Your task to perform on an android device: open app "Move to iOS" (install if not already installed) Image 0: 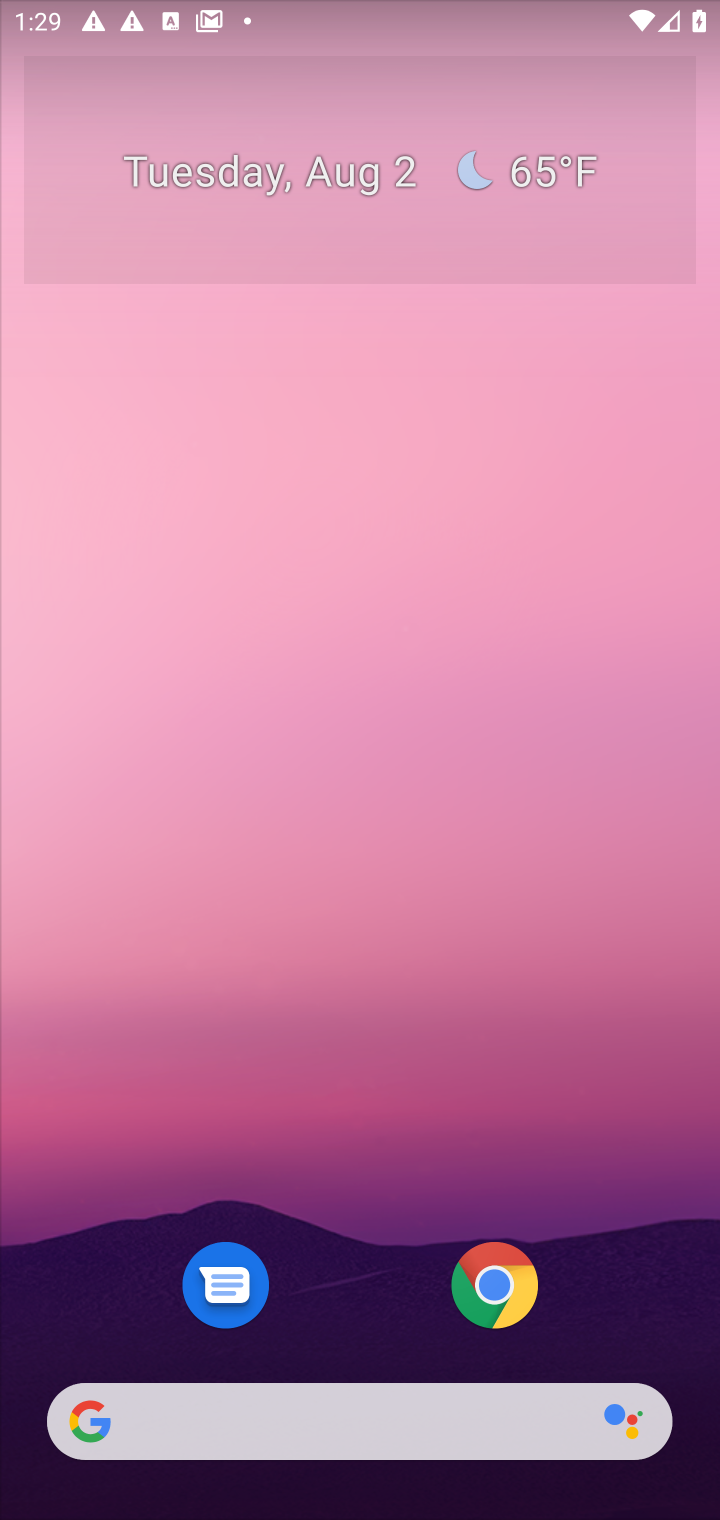
Step 0: drag from (370, 1090) to (356, 259)
Your task to perform on an android device: open app "Move to iOS" (install if not already installed) Image 1: 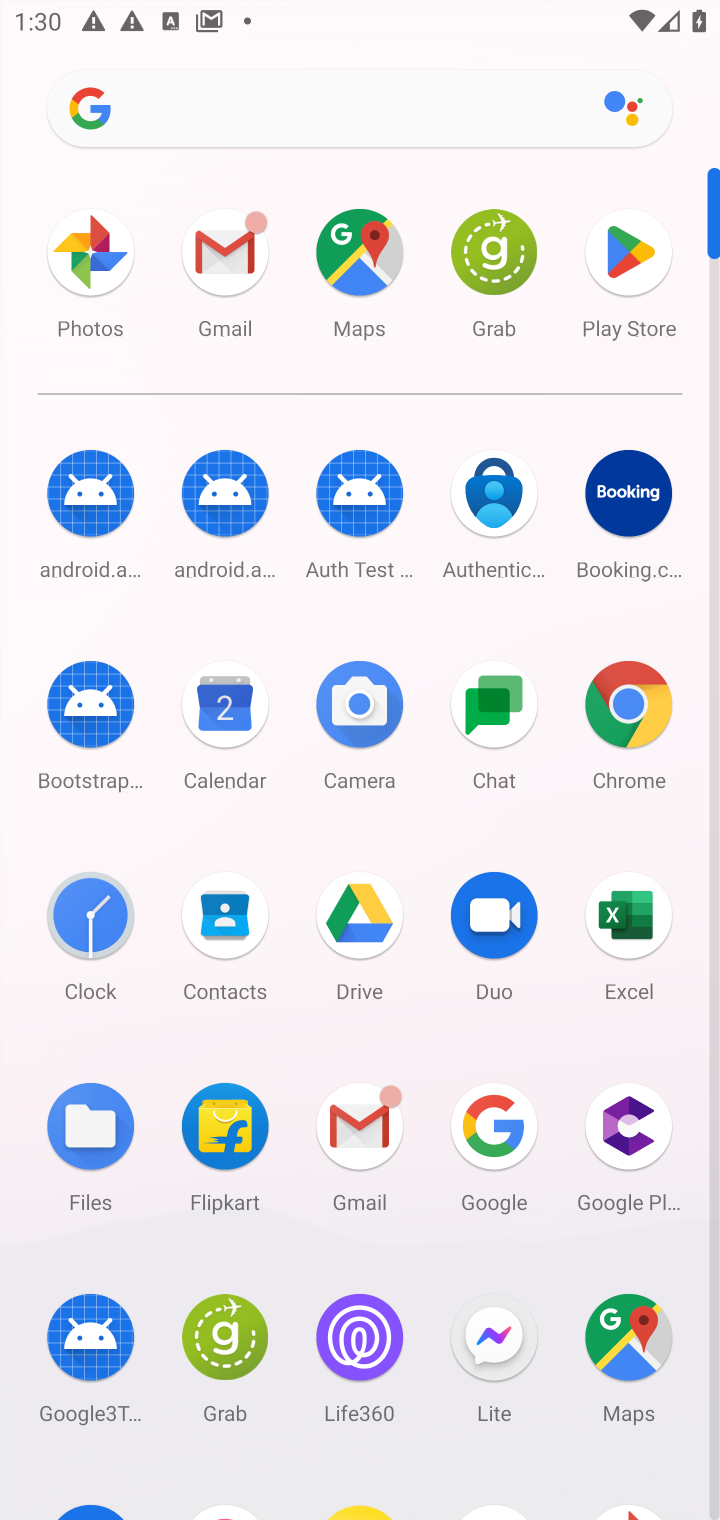
Step 1: drag from (430, 1276) to (430, 514)
Your task to perform on an android device: open app "Move to iOS" (install if not already installed) Image 2: 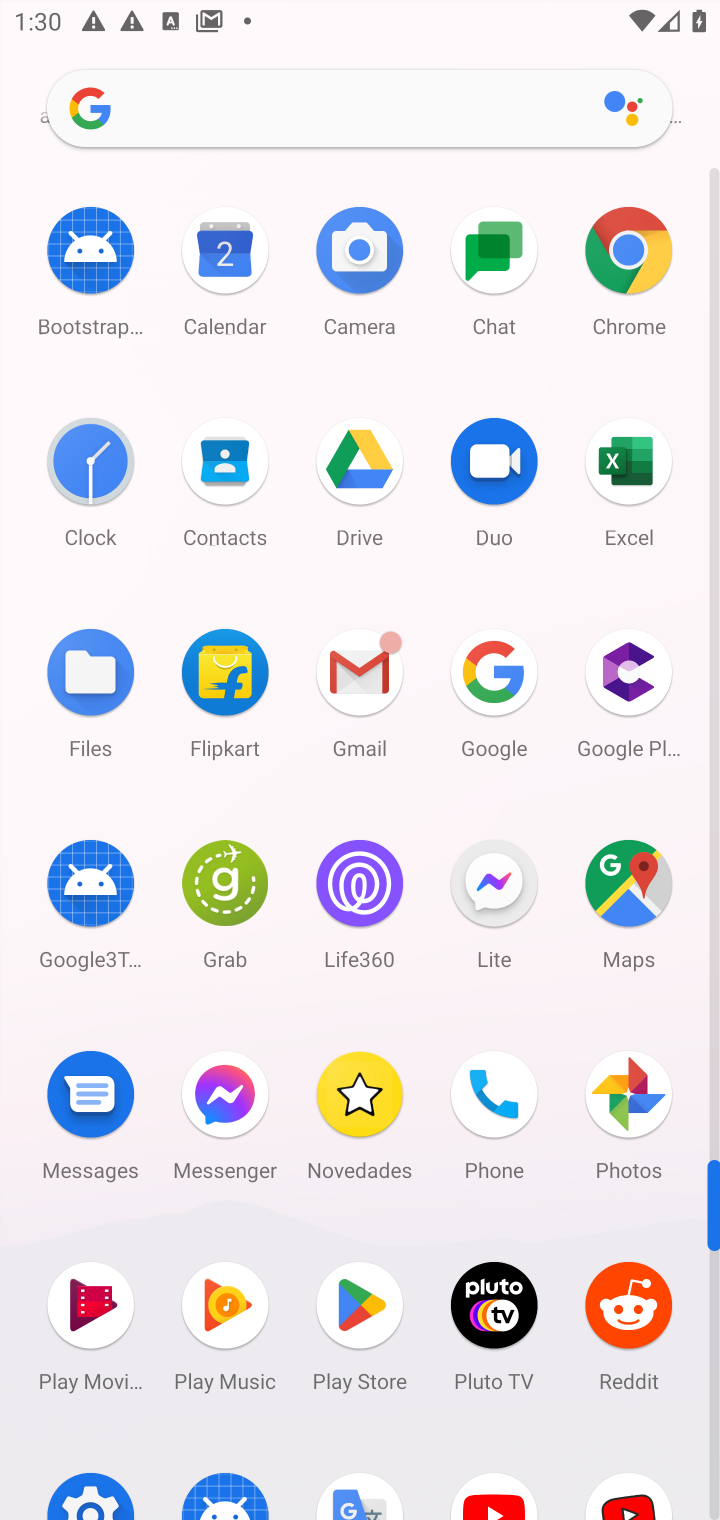
Step 2: click (374, 1321)
Your task to perform on an android device: open app "Move to iOS" (install if not already installed) Image 3: 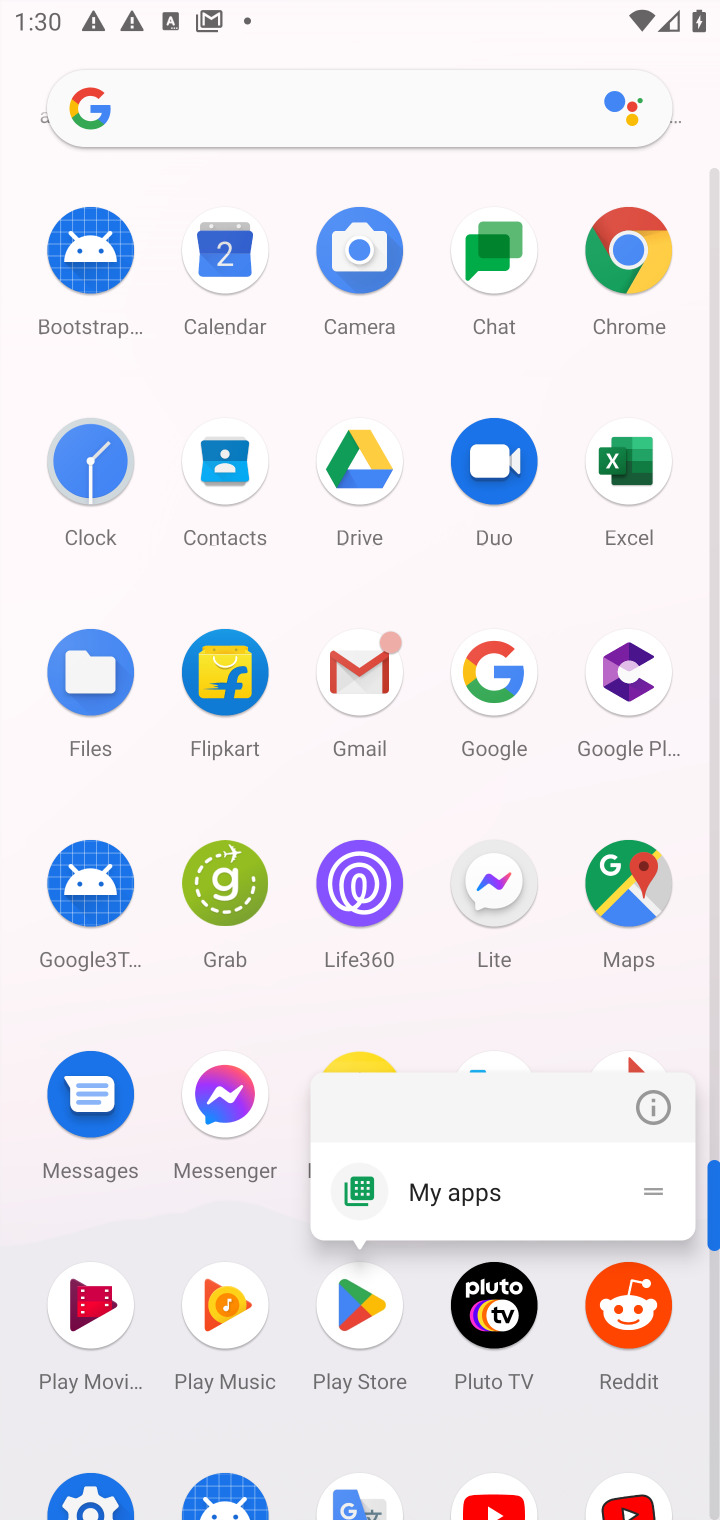
Step 3: click (374, 1308)
Your task to perform on an android device: open app "Move to iOS" (install if not already installed) Image 4: 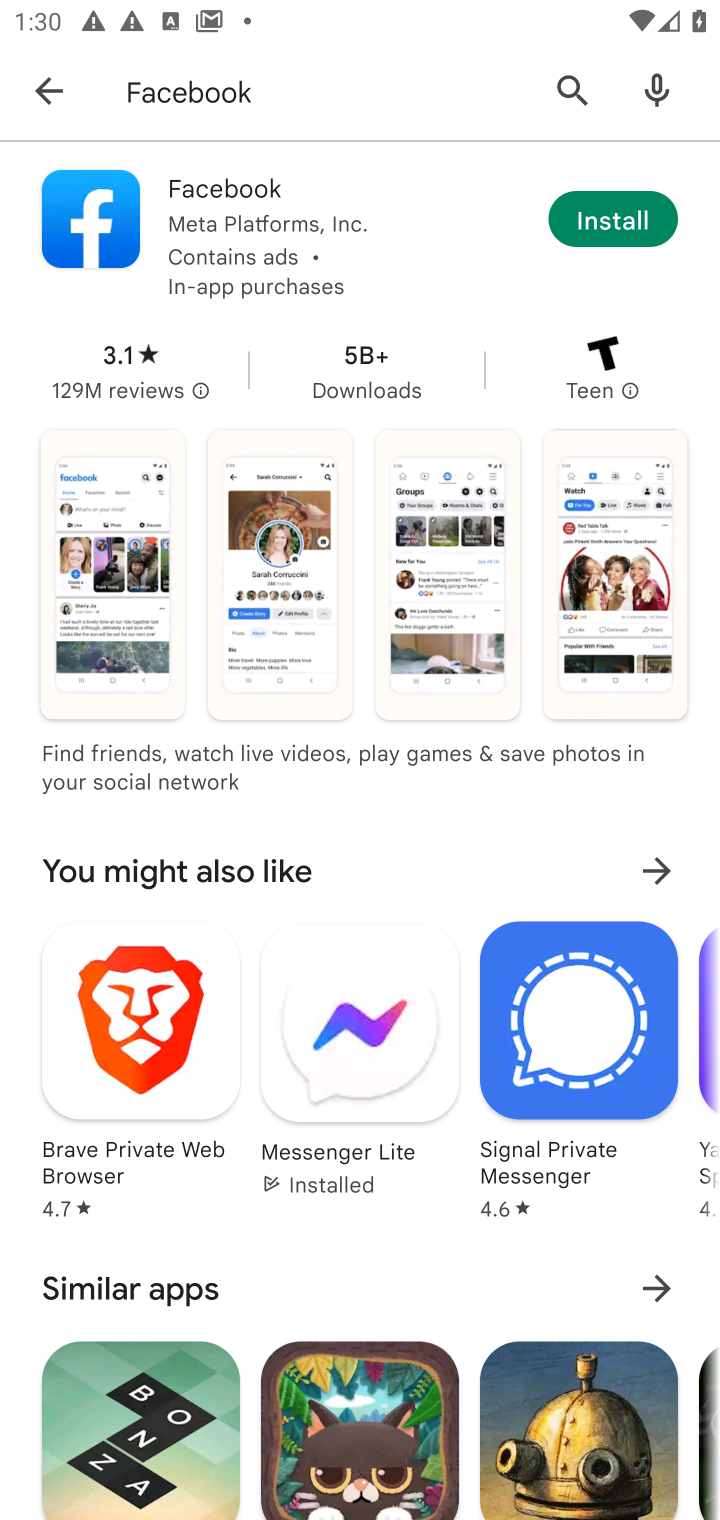
Step 4: click (385, 90)
Your task to perform on an android device: open app "Move to iOS" (install if not already installed) Image 5: 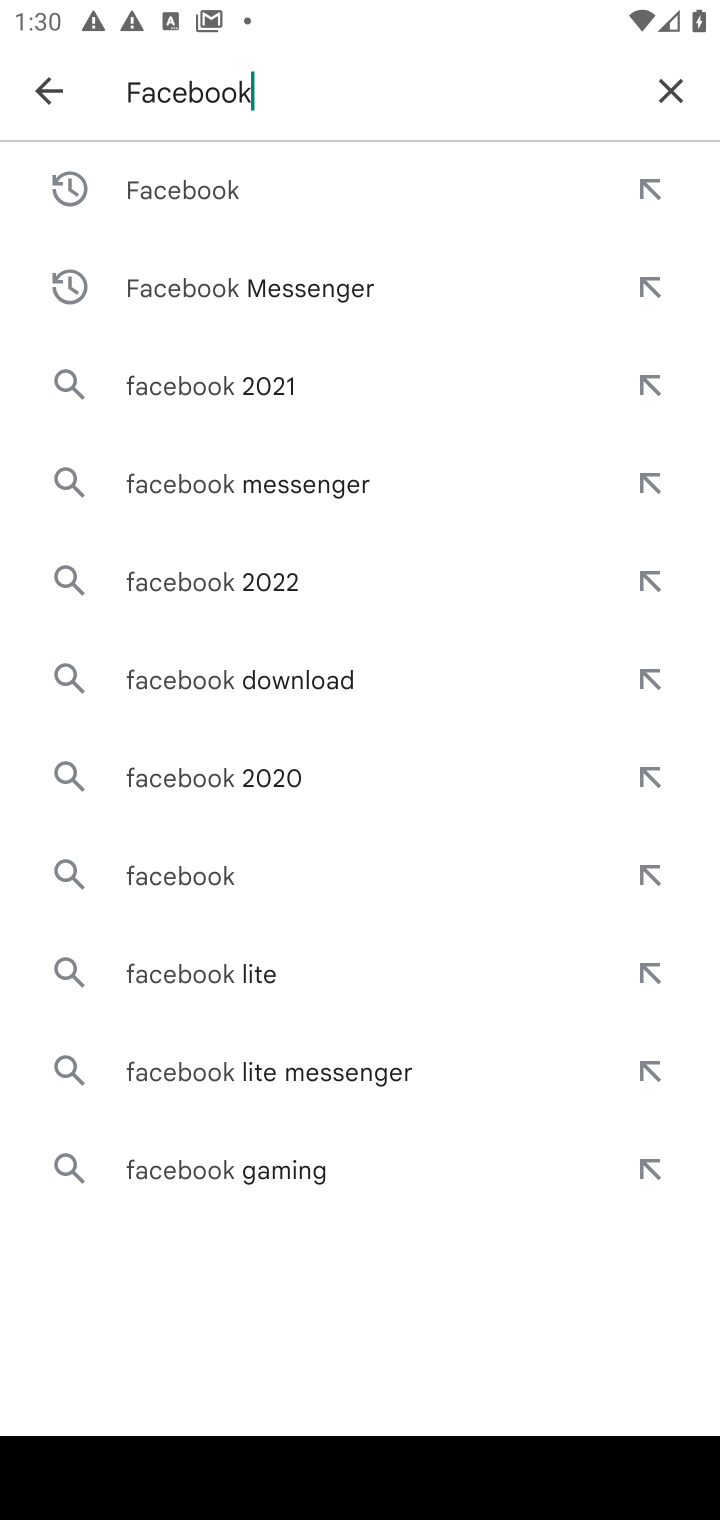
Step 5: click (662, 88)
Your task to perform on an android device: open app "Move to iOS" (install if not already installed) Image 6: 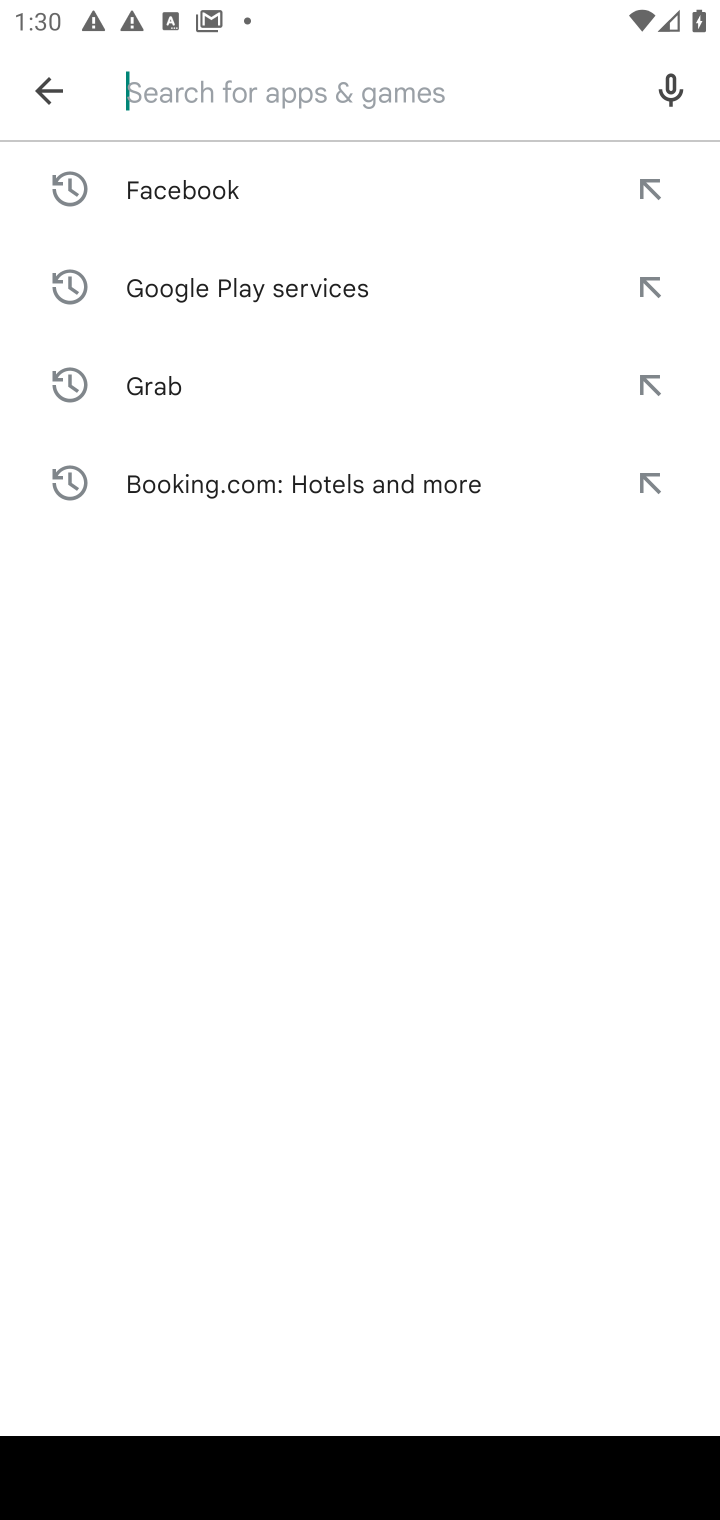
Step 6: type "Move to iOS"
Your task to perform on an android device: open app "Move to iOS" (install if not already installed) Image 7: 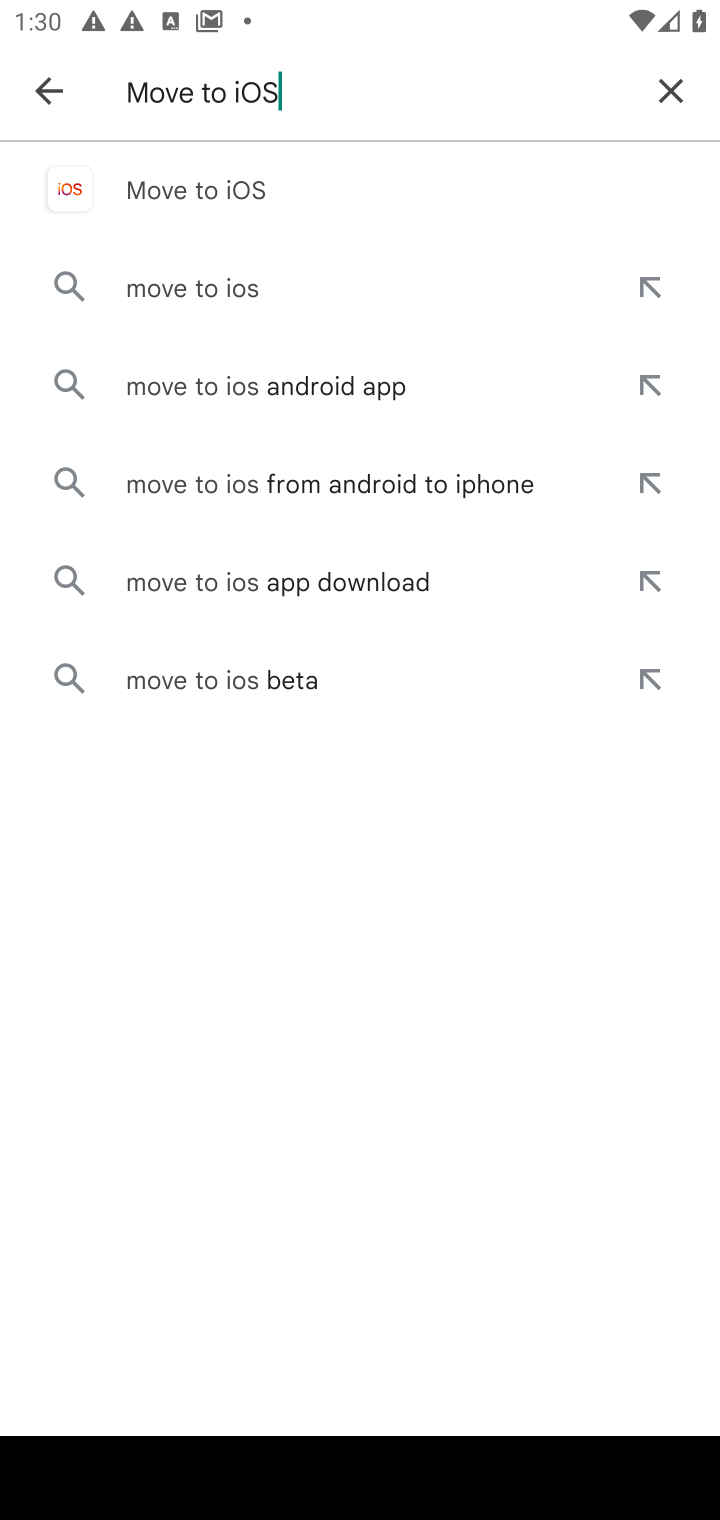
Step 7: press enter
Your task to perform on an android device: open app "Move to iOS" (install if not already installed) Image 8: 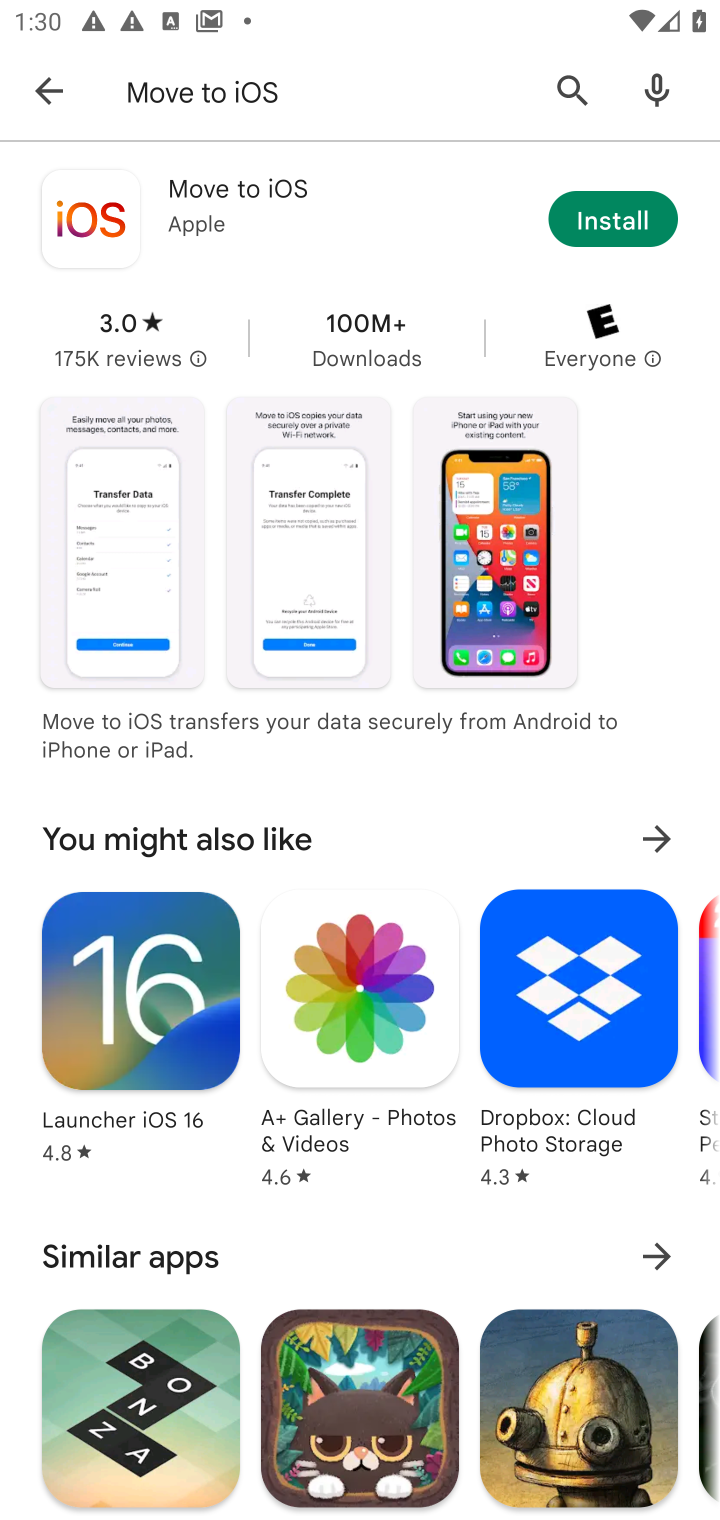
Step 8: click (611, 234)
Your task to perform on an android device: open app "Move to iOS" (install if not already installed) Image 9: 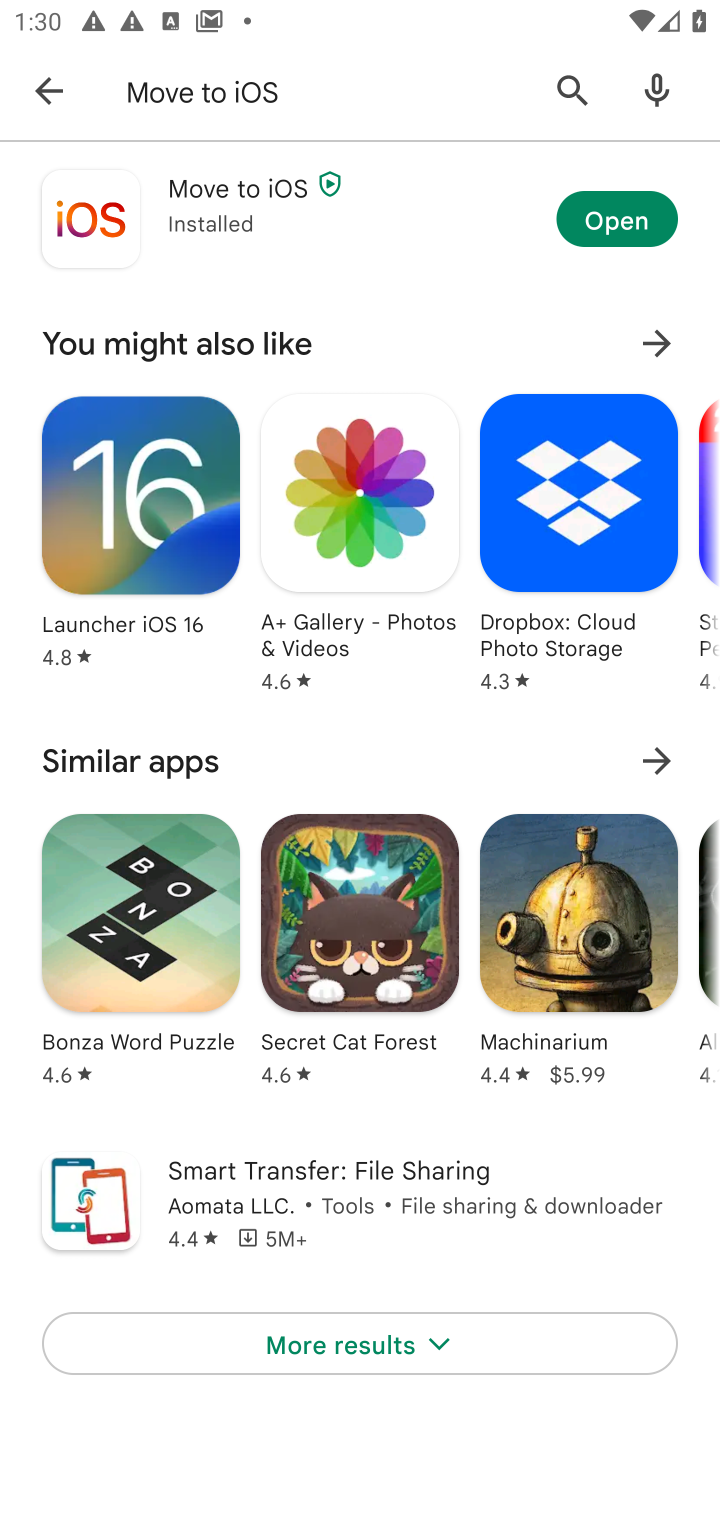
Step 9: click (597, 221)
Your task to perform on an android device: open app "Move to iOS" (install if not already installed) Image 10: 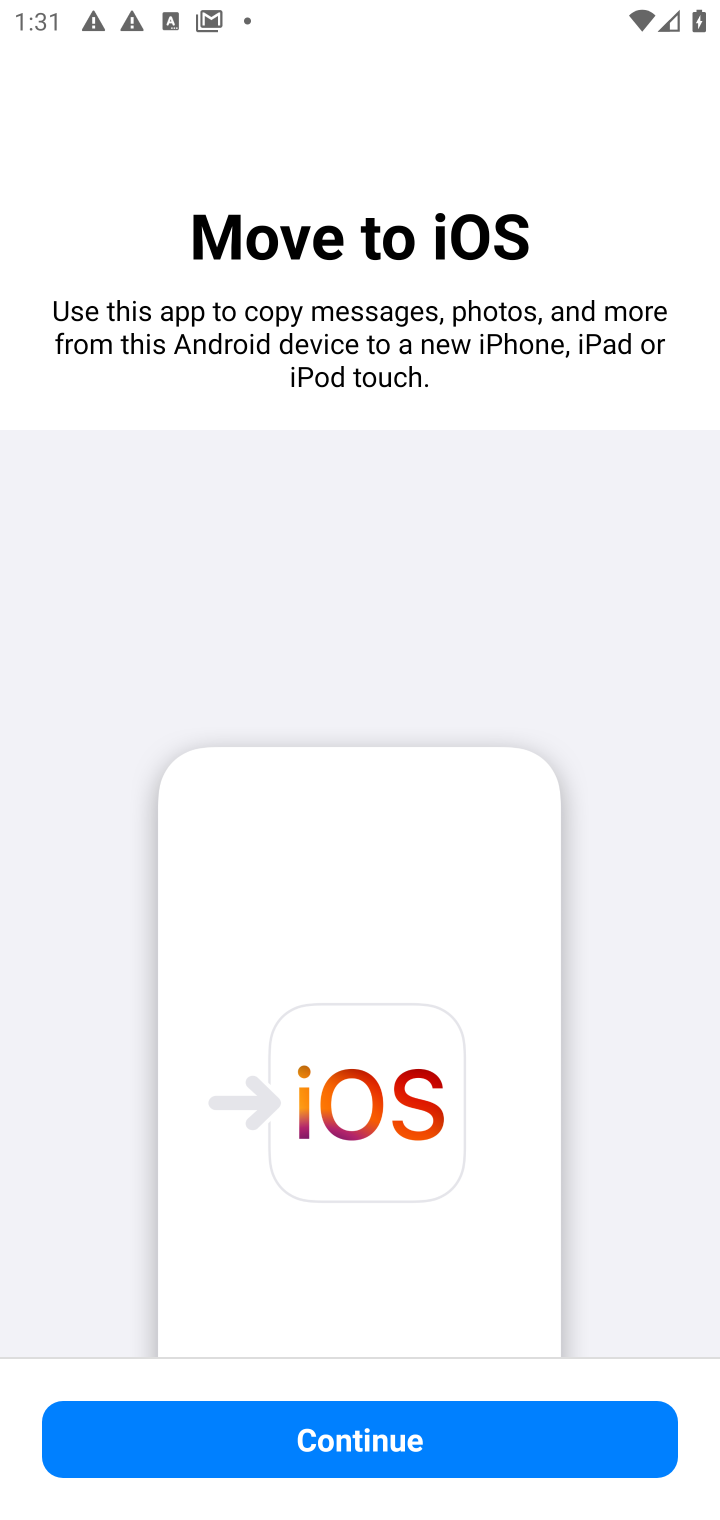
Step 10: task complete